Your task to perform on an android device: Go to notification settings Image 0: 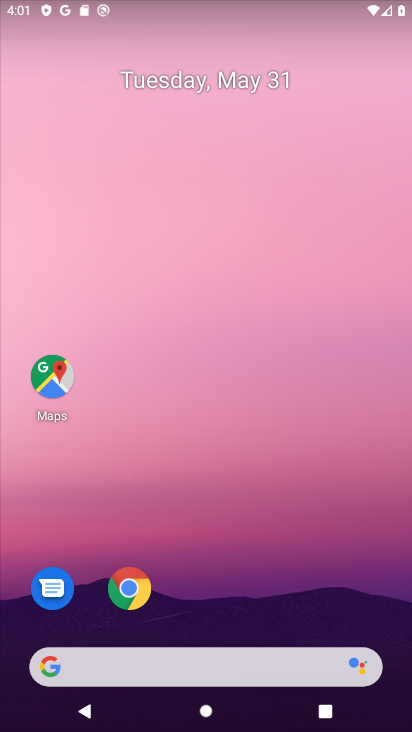
Step 0: drag from (212, 628) to (345, 15)
Your task to perform on an android device: Go to notification settings Image 1: 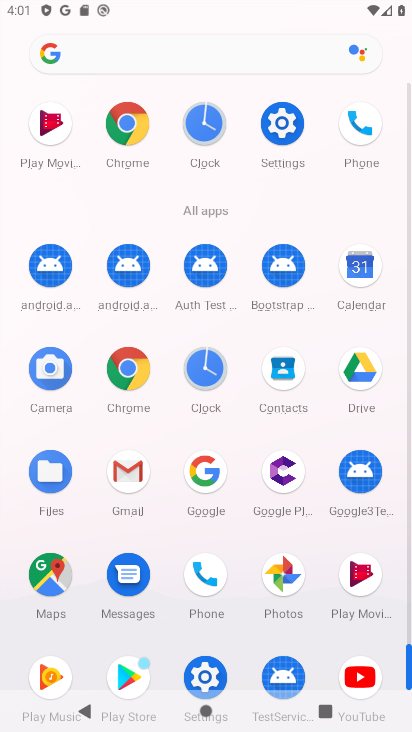
Step 1: click (289, 102)
Your task to perform on an android device: Go to notification settings Image 2: 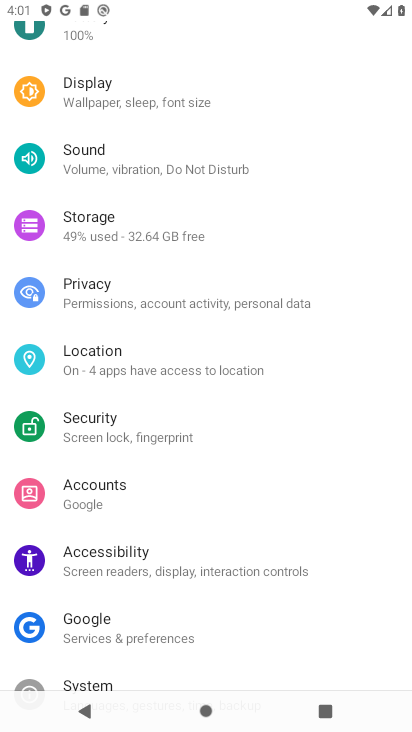
Step 2: drag from (154, 234) to (169, 628)
Your task to perform on an android device: Go to notification settings Image 3: 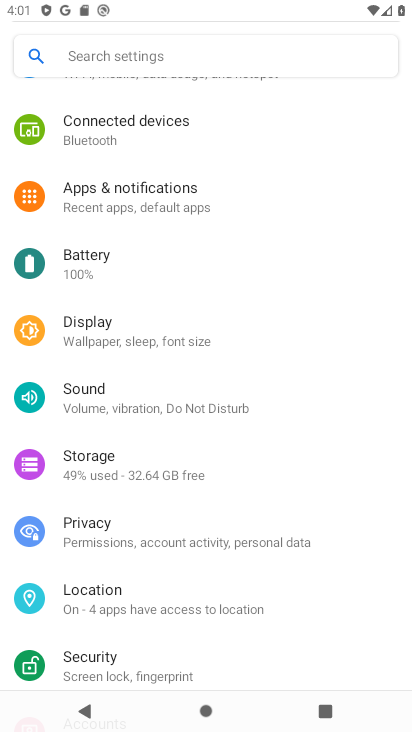
Step 3: click (152, 185)
Your task to perform on an android device: Go to notification settings Image 4: 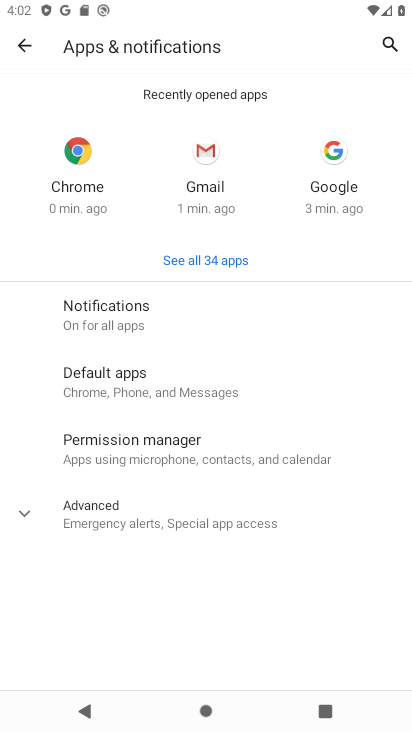
Step 4: task complete